Your task to perform on an android device: set default search engine in the chrome app Image 0: 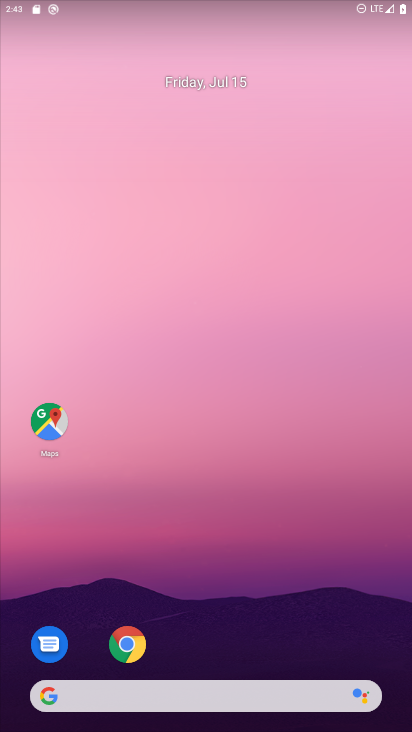
Step 0: drag from (52, 464) to (324, 7)
Your task to perform on an android device: set default search engine in the chrome app Image 1: 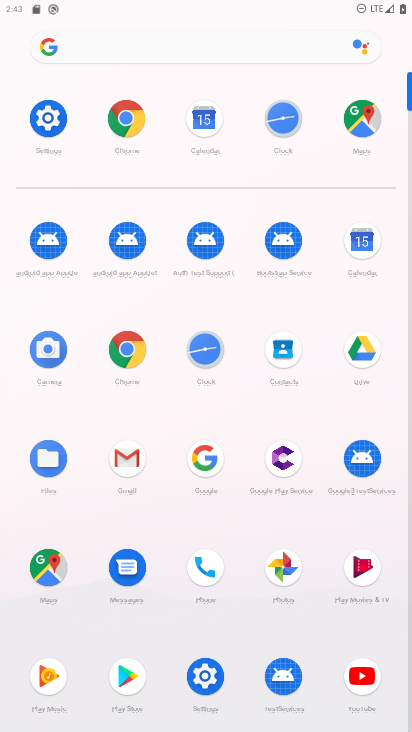
Step 1: click (108, 347)
Your task to perform on an android device: set default search engine in the chrome app Image 2: 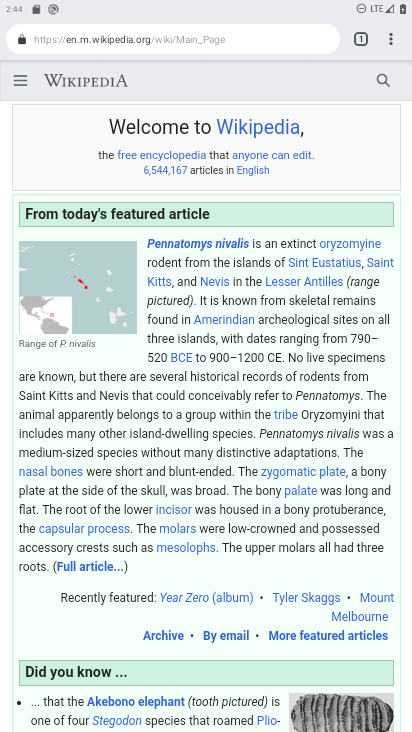
Step 2: click (392, 47)
Your task to perform on an android device: set default search engine in the chrome app Image 3: 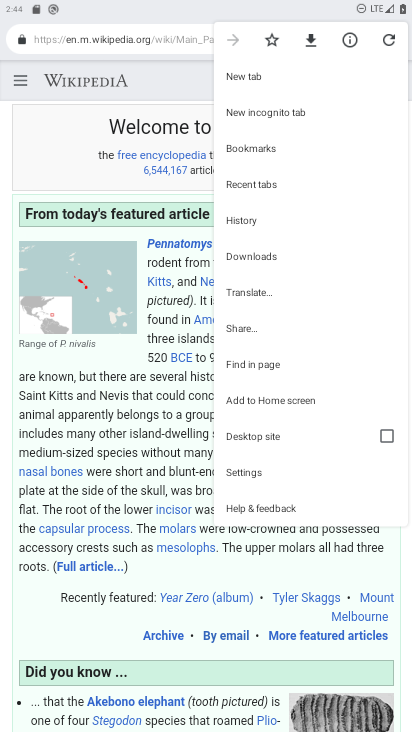
Step 3: click (233, 482)
Your task to perform on an android device: set default search engine in the chrome app Image 4: 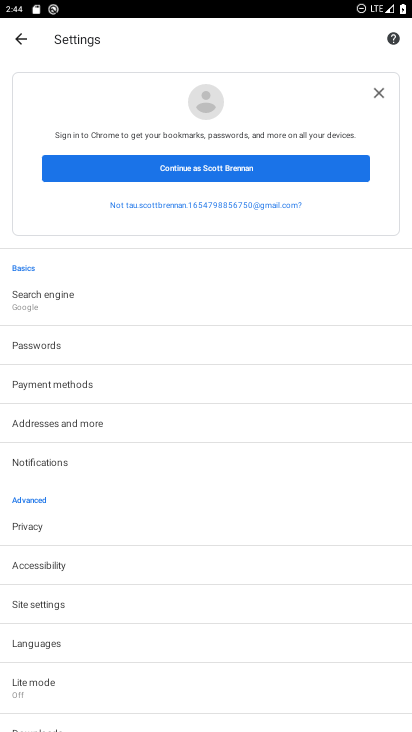
Step 4: click (80, 284)
Your task to perform on an android device: set default search engine in the chrome app Image 5: 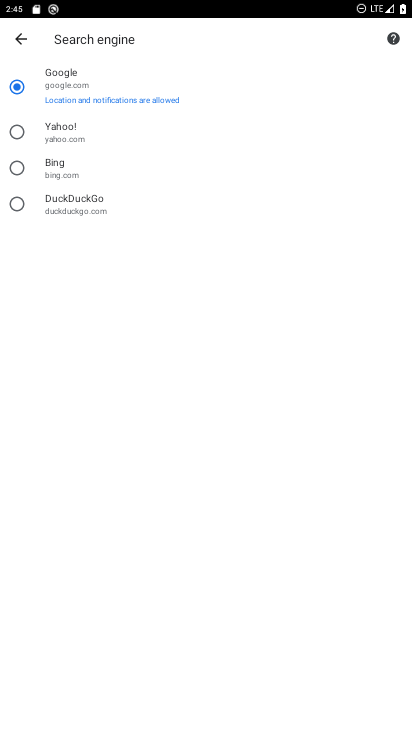
Step 5: task complete